Your task to perform on an android device: remove spam from my inbox in the gmail app Image 0: 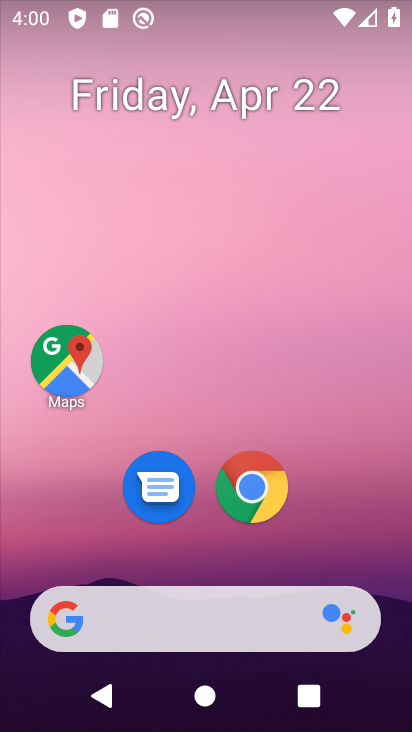
Step 0: drag from (268, 392) to (361, 3)
Your task to perform on an android device: remove spam from my inbox in the gmail app Image 1: 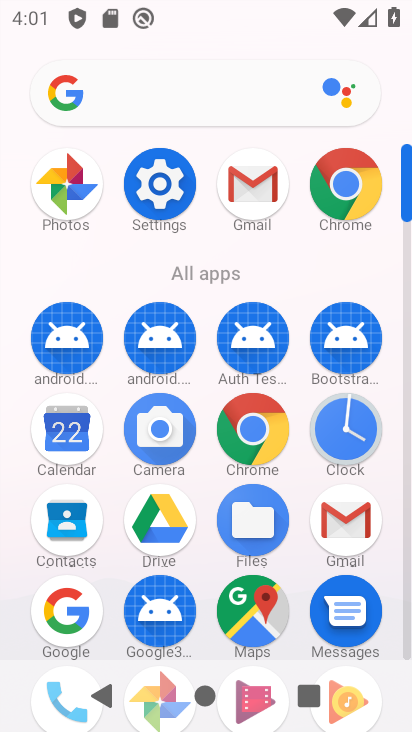
Step 1: click (238, 204)
Your task to perform on an android device: remove spam from my inbox in the gmail app Image 2: 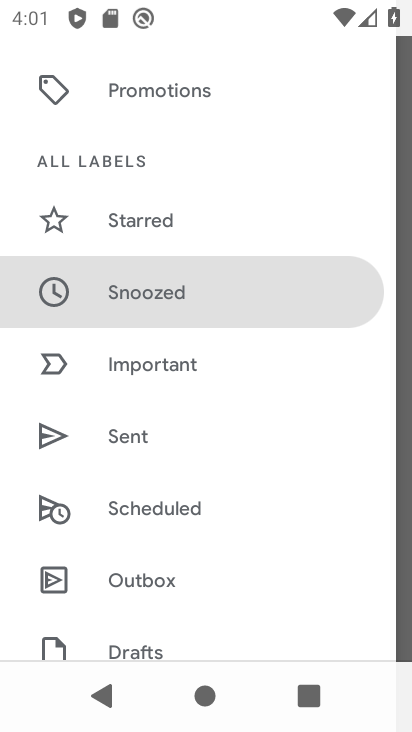
Step 2: drag from (207, 559) to (271, 258)
Your task to perform on an android device: remove spam from my inbox in the gmail app Image 3: 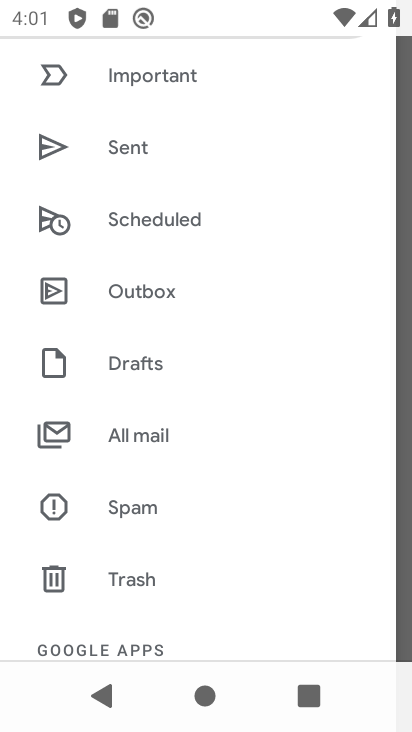
Step 3: click (210, 504)
Your task to perform on an android device: remove spam from my inbox in the gmail app Image 4: 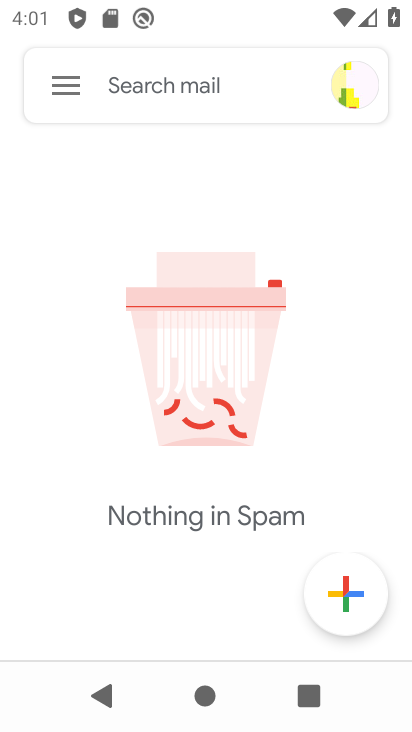
Step 4: task complete